Your task to perform on an android device: allow cookies in the chrome app Image 0: 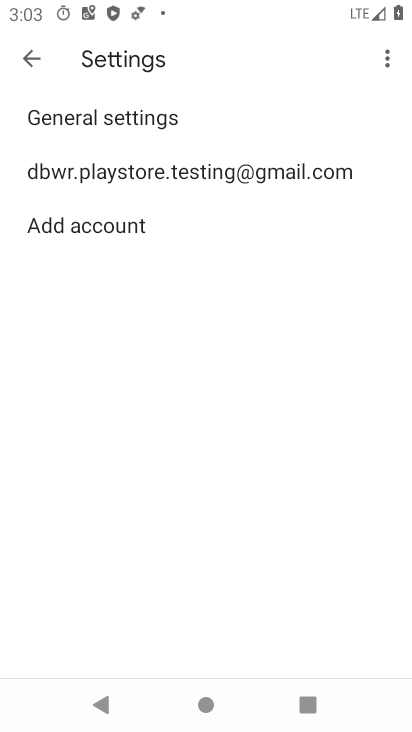
Step 0: press home button
Your task to perform on an android device: allow cookies in the chrome app Image 1: 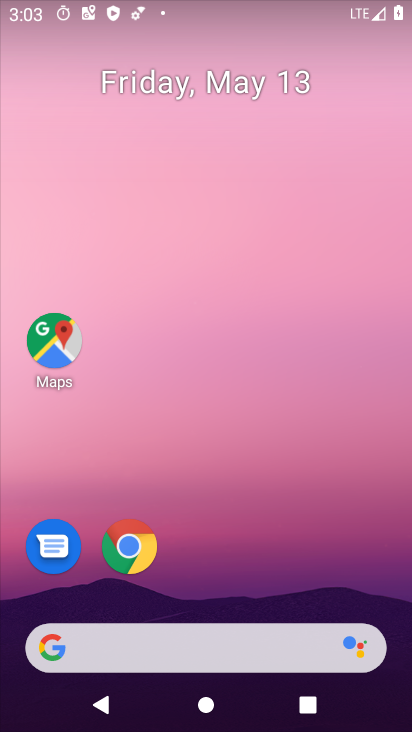
Step 1: drag from (239, 574) to (242, 158)
Your task to perform on an android device: allow cookies in the chrome app Image 2: 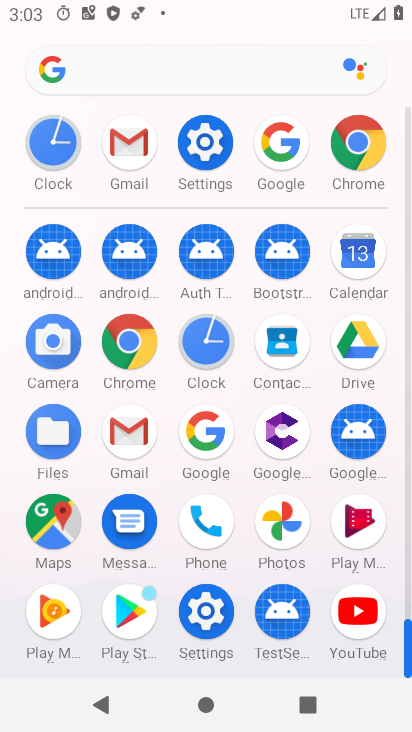
Step 2: click (347, 185)
Your task to perform on an android device: allow cookies in the chrome app Image 3: 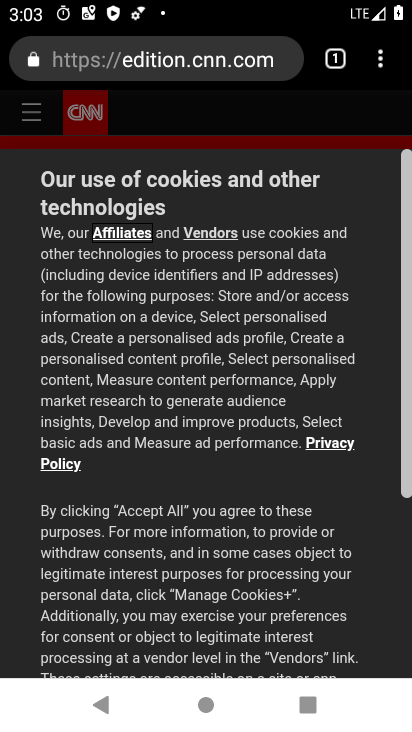
Step 3: click (375, 73)
Your task to perform on an android device: allow cookies in the chrome app Image 4: 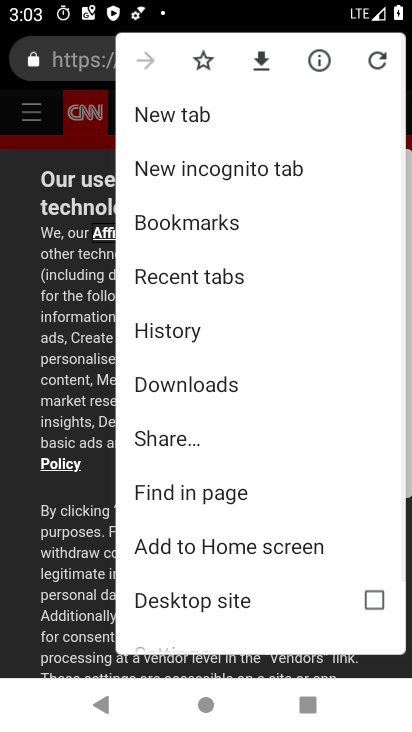
Step 4: drag from (194, 460) to (255, 118)
Your task to perform on an android device: allow cookies in the chrome app Image 5: 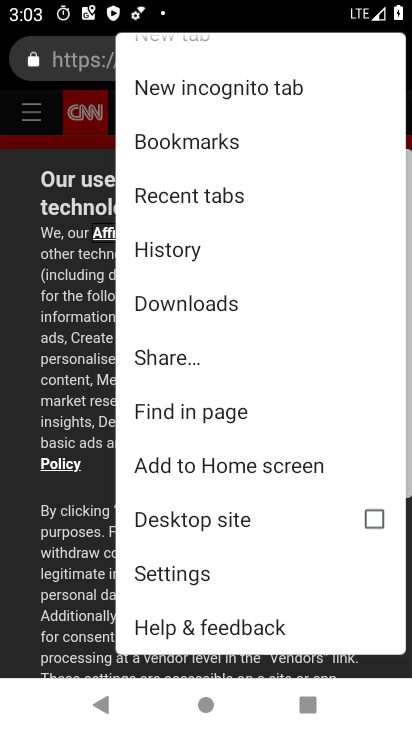
Step 5: click (218, 586)
Your task to perform on an android device: allow cookies in the chrome app Image 6: 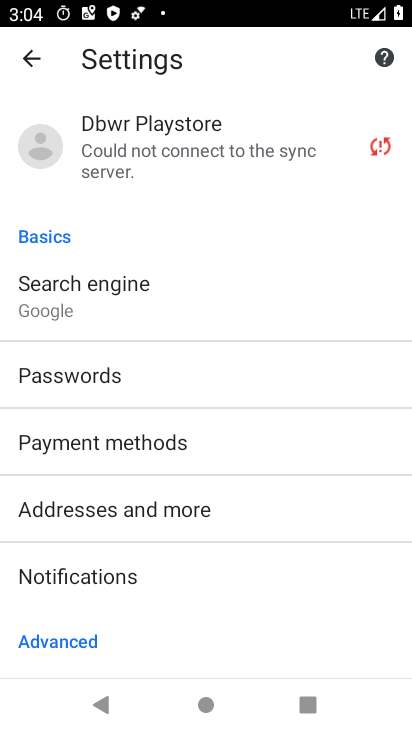
Step 6: drag from (145, 481) to (163, 308)
Your task to perform on an android device: allow cookies in the chrome app Image 7: 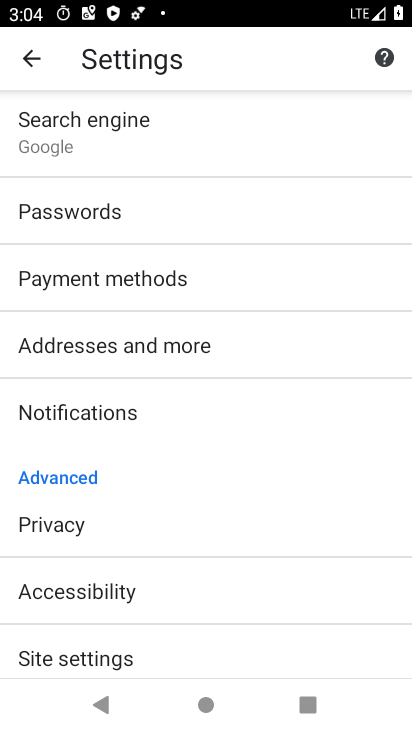
Step 7: drag from (169, 538) to (197, 381)
Your task to perform on an android device: allow cookies in the chrome app Image 8: 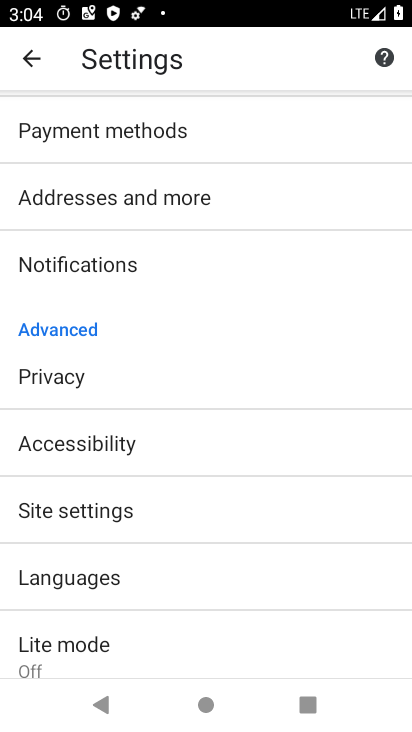
Step 8: click (98, 518)
Your task to perform on an android device: allow cookies in the chrome app Image 9: 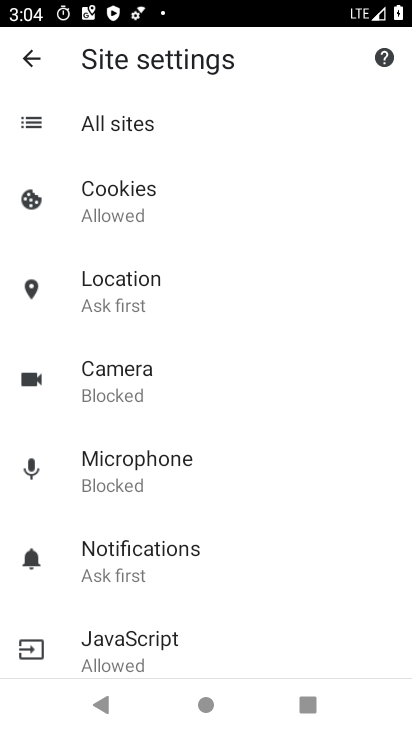
Step 9: click (163, 210)
Your task to perform on an android device: allow cookies in the chrome app Image 10: 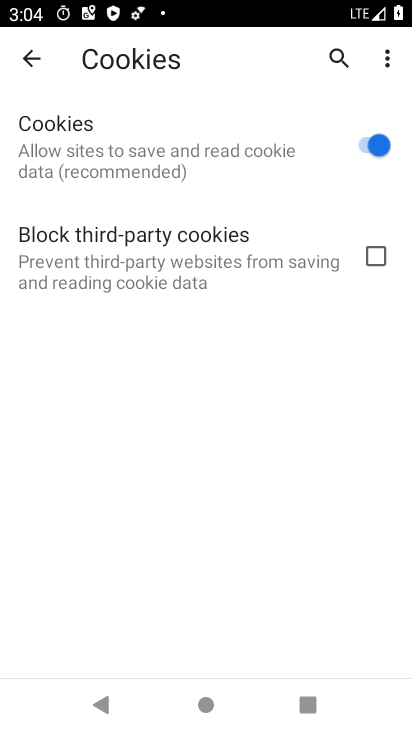
Step 10: task complete